Your task to perform on an android device: open device folders in google photos Image 0: 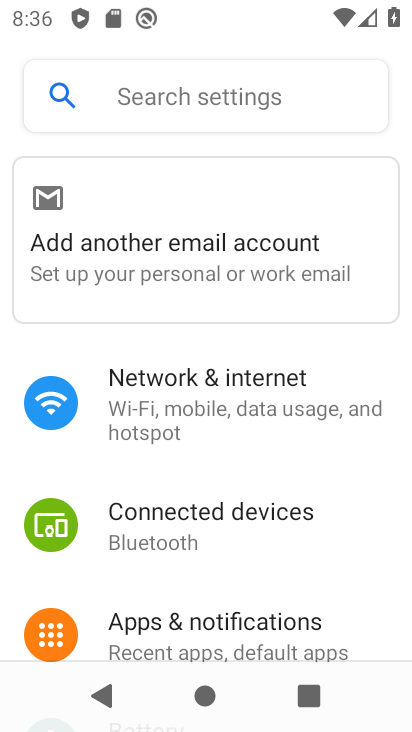
Step 0: press home button
Your task to perform on an android device: open device folders in google photos Image 1: 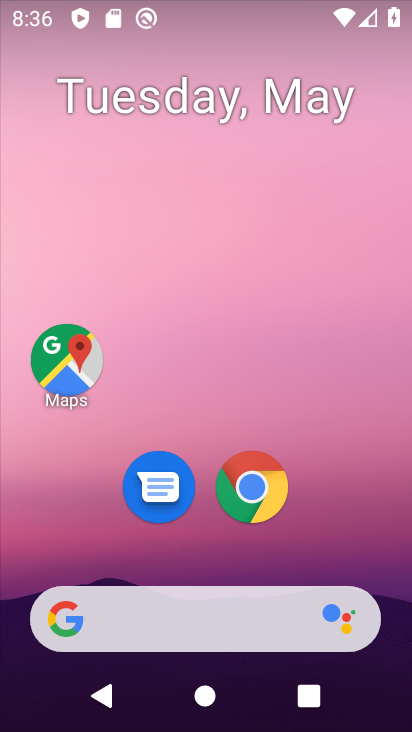
Step 1: drag from (183, 618) to (335, 73)
Your task to perform on an android device: open device folders in google photos Image 2: 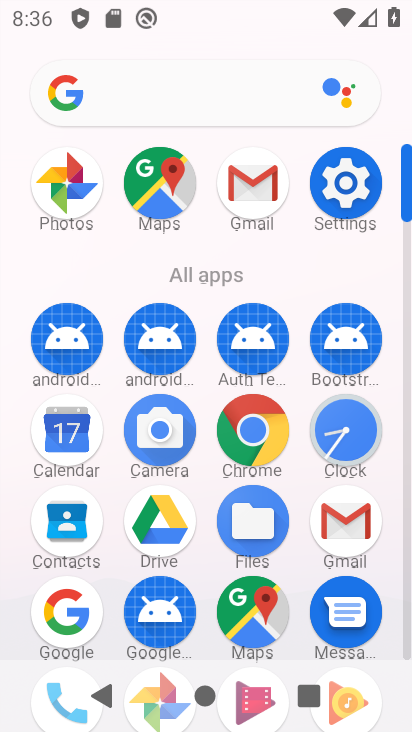
Step 2: click (68, 196)
Your task to perform on an android device: open device folders in google photos Image 3: 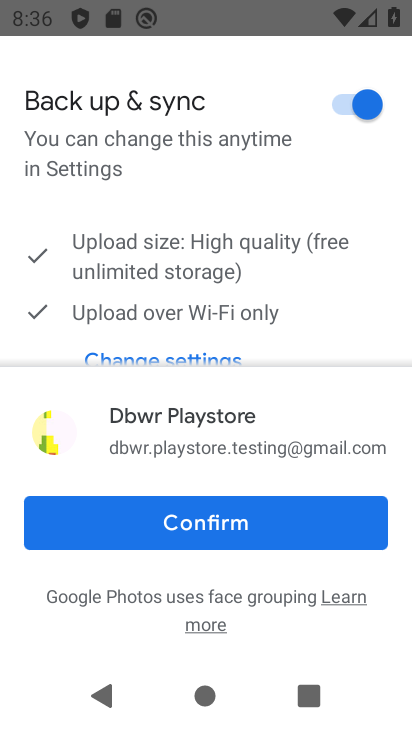
Step 3: click (220, 528)
Your task to perform on an android device: open device folders in google photos Image 4: 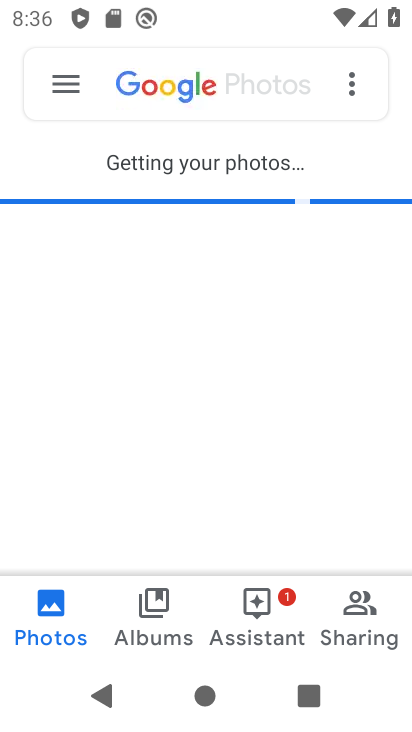
Step 4: click (70, 84)
Your task to perform on an android device: open device folders in google photos Image 5: 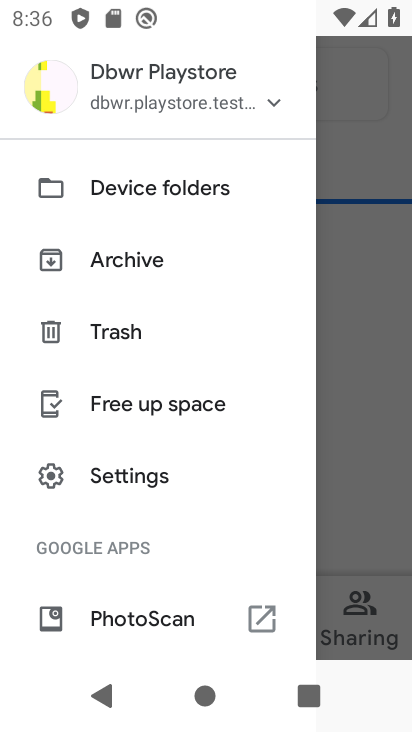
Step 5: click (142, 185)
Your task to perform on an android device: open device folders in google photos Image 6: 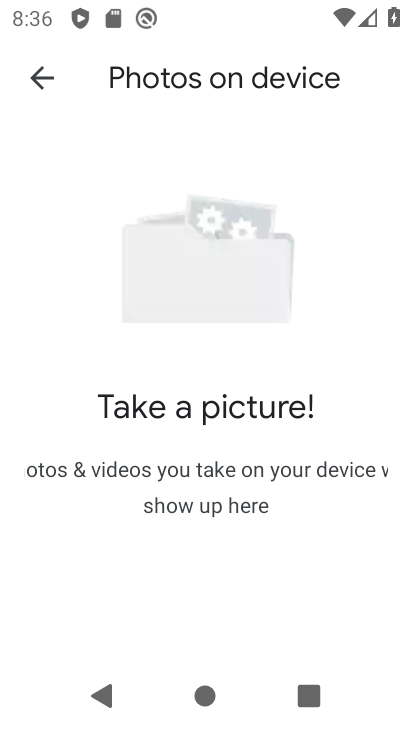
Step 6: task complete